Your task to perform on an android device: What's the weather going to be tomorrow? Image 0: 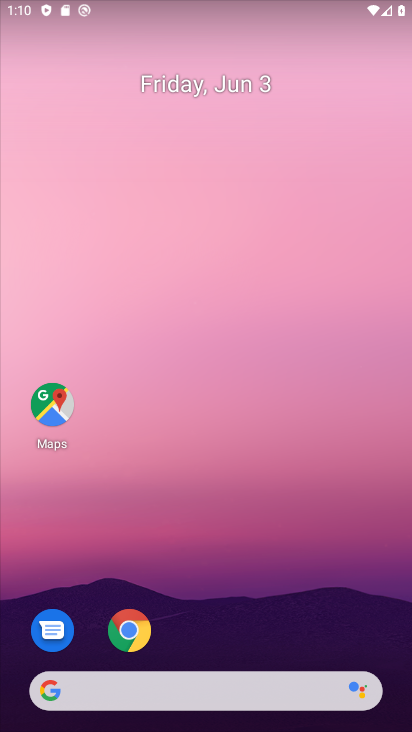
Step 0: drag from (311, 731) to (212, 114)
Your task to perform on an android device: What's the weather going to be tomorrow? Image 1: 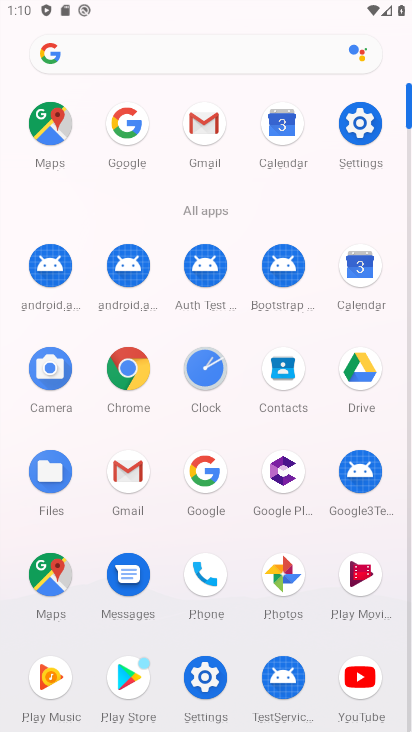
Step 1: click (204, 477)
Your task to perform on an android device: What's the weather going to be tomorrow? Image 2: 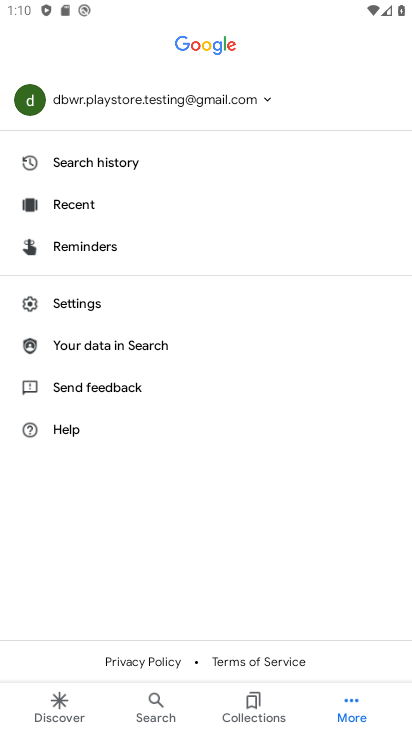
Step 2: click (141, 707)
Your task to perform on an android device: What's the weather going to be tomorrow? Image 3: 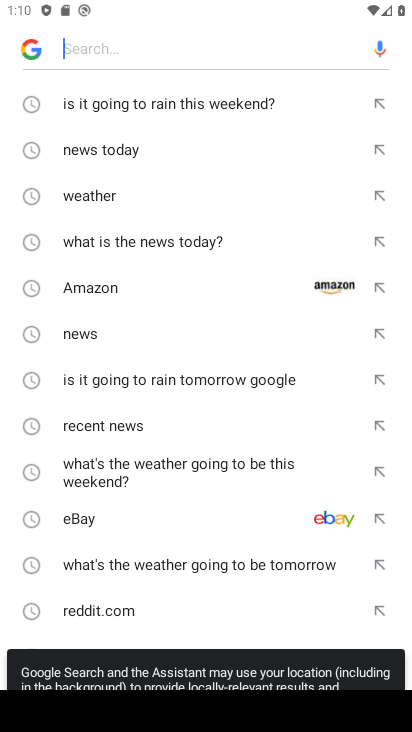
Step 3: click (79, 193)
Your task to perform on an android device: What's the weather going to be tomorrow? Image 4: 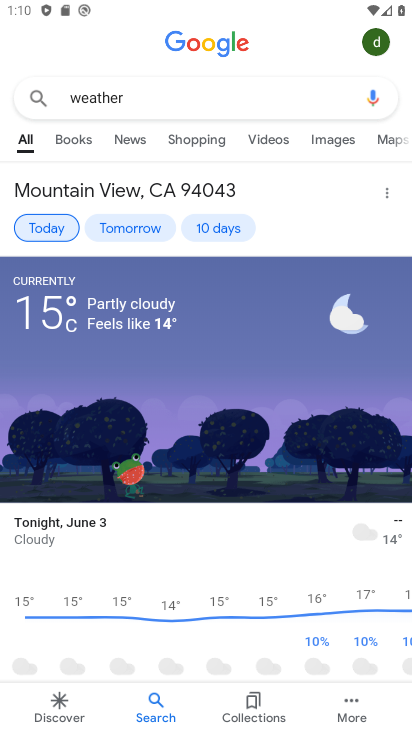
Step 4: click (43, 228)
Your task to perform on an android device: What's the weather going to be tomorrow? Image 5: 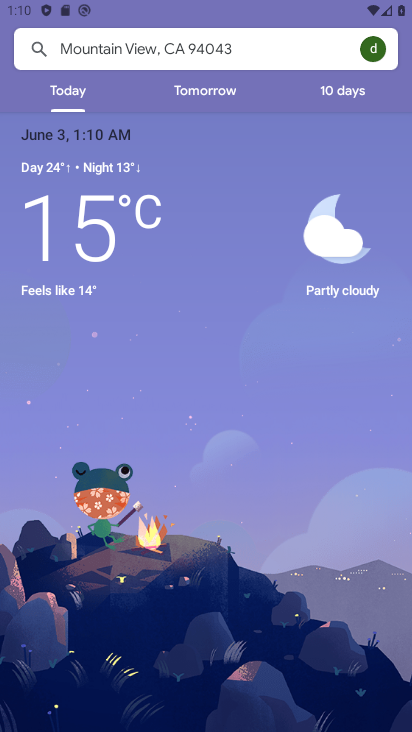
Step 5: click (206, 92)
Your task to perform on an android device: What's the weather going to be tomorrow? Image 6: 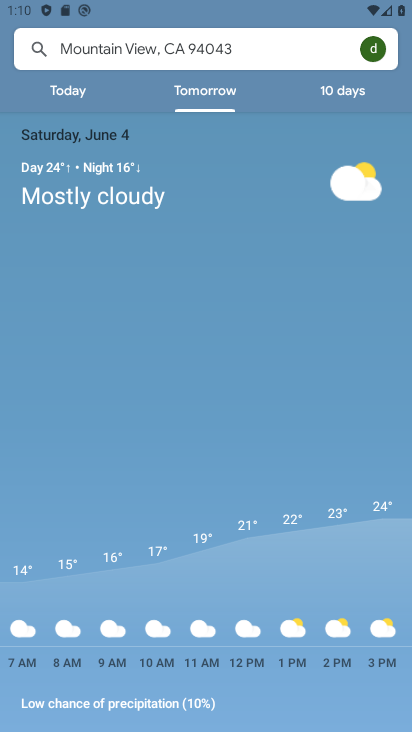
Step 6: task complete